Your task to perform on an android device: clear all cookies in the chrome app Image 0: 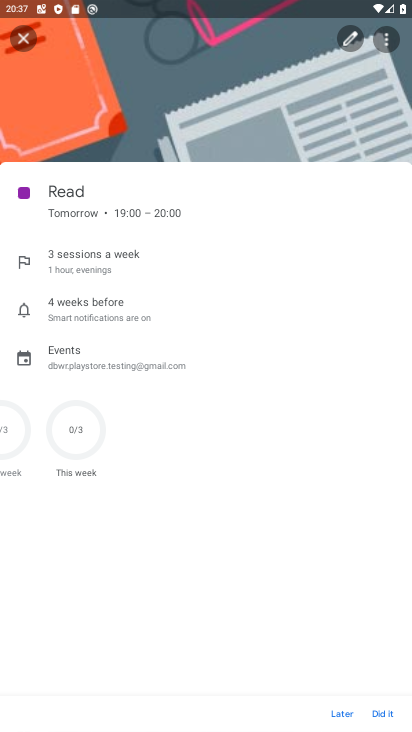
Step 0: press back button
Your task to perform on an android device: clear all cookies in the chrome app Image 1: 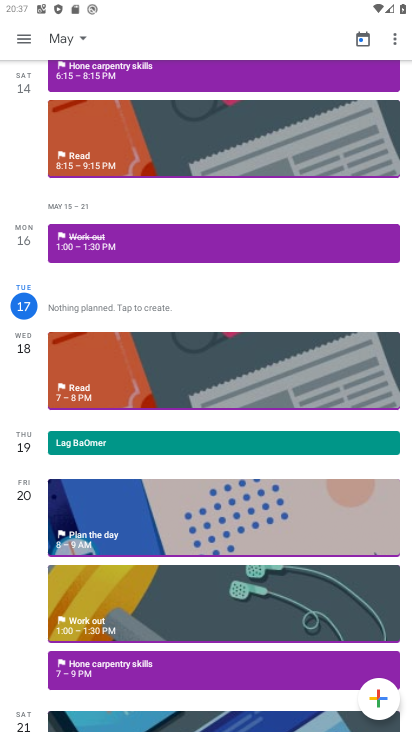
Step 1: press back button
Your task to perform on an android device: clear all cookies in the chrome app Image 2: 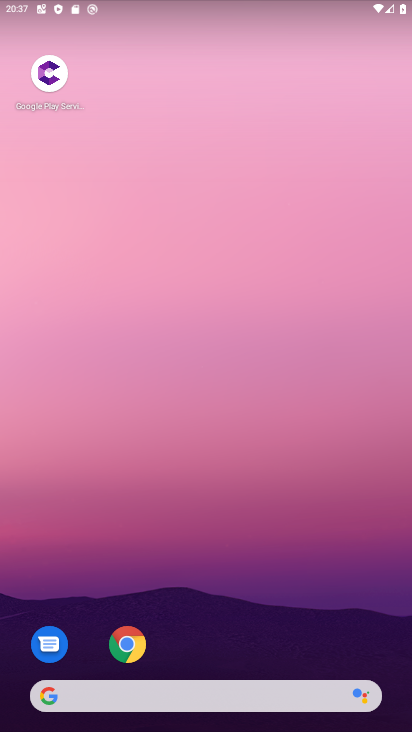
Step 2: click (131, 640)
Your task to perform on an android device: clear all cookies in the chrome app Image 3: 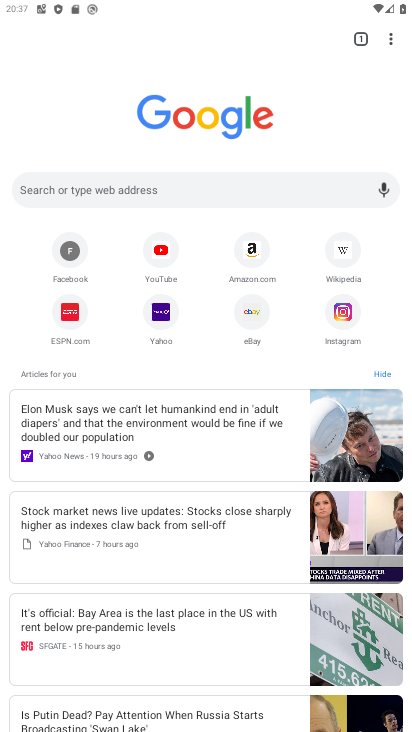
Step 3: drag from (387, 36) to (247, 228)
Your task to perform on an android device: clear all cookies in the chrome app Image 4: 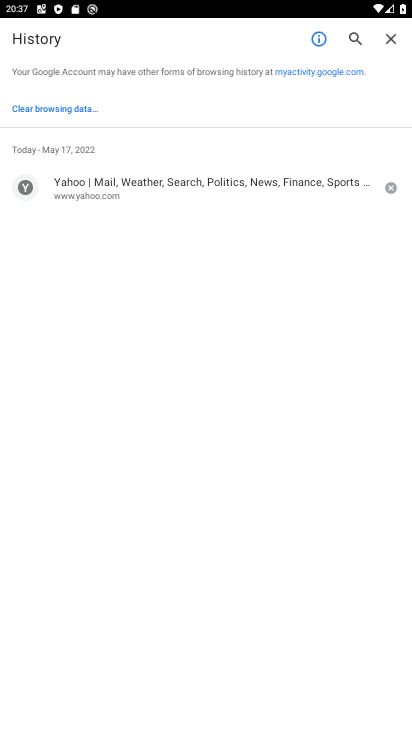
Step 4: click (57, 104)
Your task to perform on an android device: clear all cookies in the chrome app Image 5: 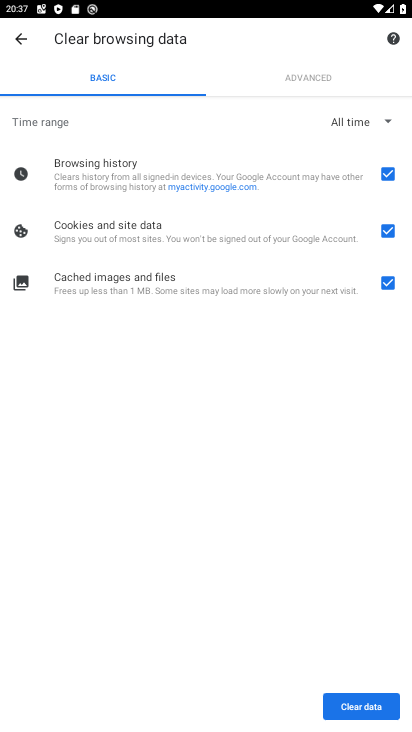
Step 5: click (384, 171)
Your task to perform on an android device: clear all cookies in the chrome app Image 6: 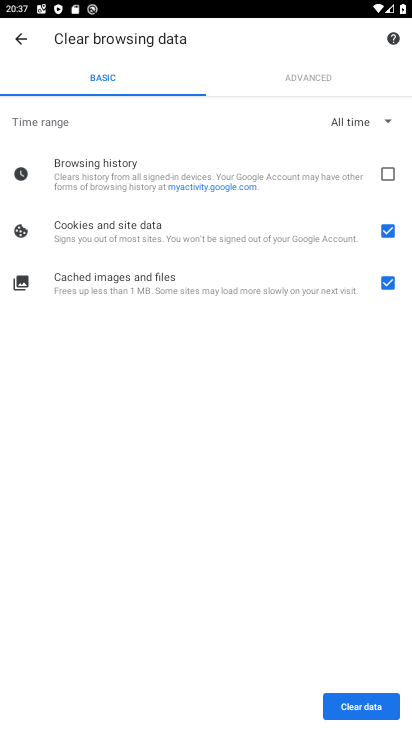
Step 6: click (392, 281)
Your task to perform on an android device: clear all cookies in the chrome app Image 7: 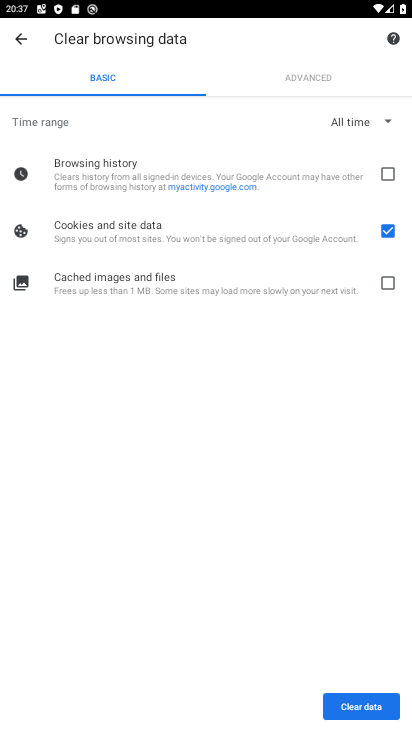
Step 7: click (350, 703)
Your task to perform on an android device: clear all cookies in the chrome app Image 8: 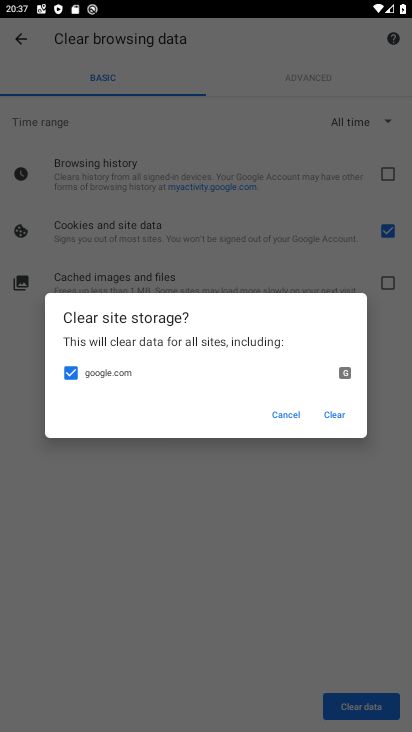
Step 8: click (327, 415)
Your task to perform on an android device: clear all cookies in the chrome app Image 9: 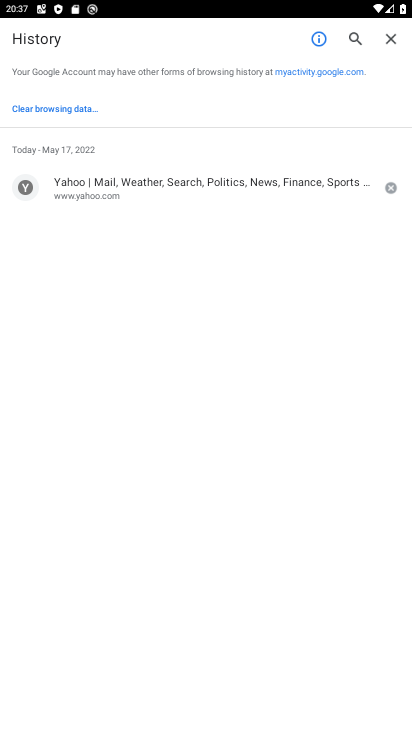
Step 9: task complete